Your task to perform on an android device: clear all cookies in the chrome app Image 0: 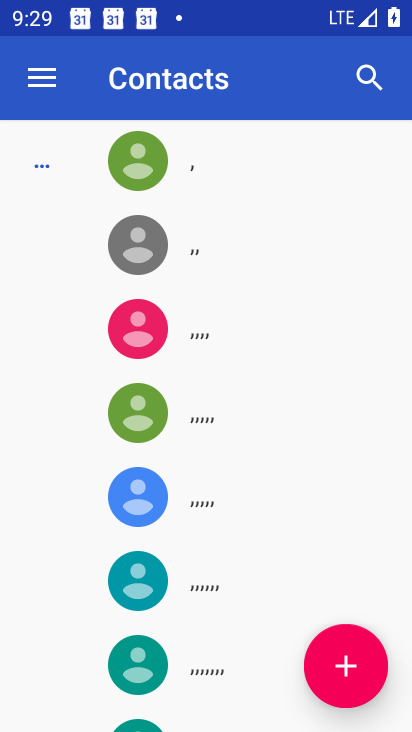
Step 0: press back button
Your task to perform on an android device: clear all cookies in the chrome app Image 1: 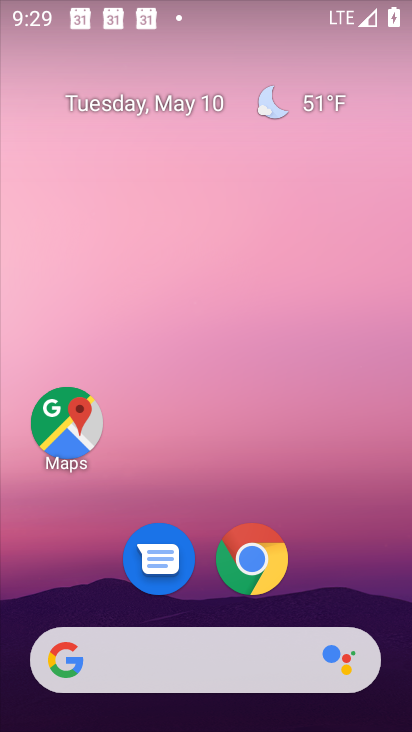
Step 1: click (255, 560)
Your task to perform on an android device: clear all cookies in the chrome app Image 2: 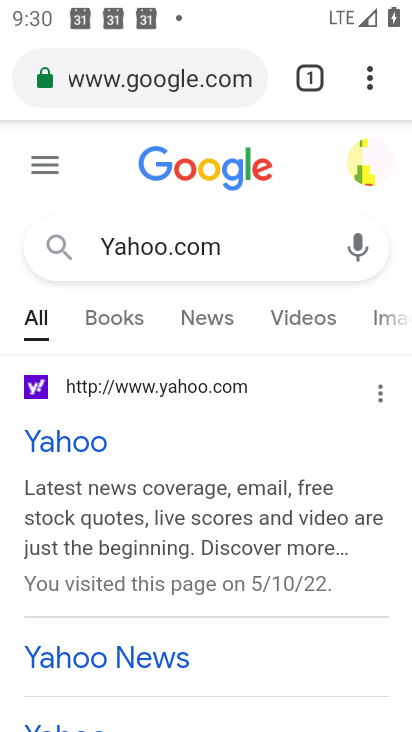
Step 2: click (370, 80)
Your task to perform on an android device: clear all cookies in the chrome app Image 3: 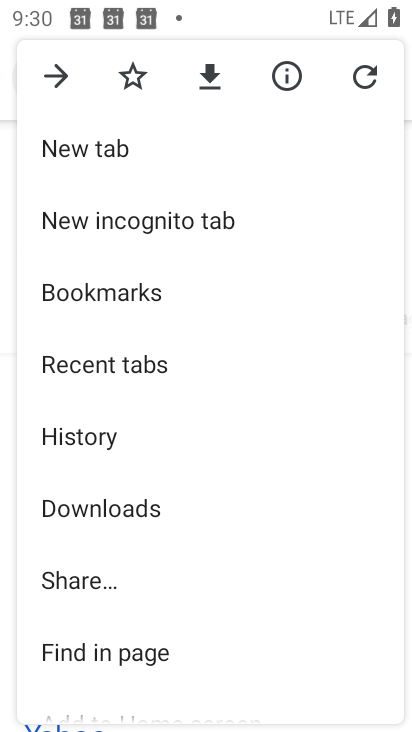
Step 3: drag from (127, 544) to (150, 396)
Your task to perform on an android device: clear all cookies in the chrome app Image 4: 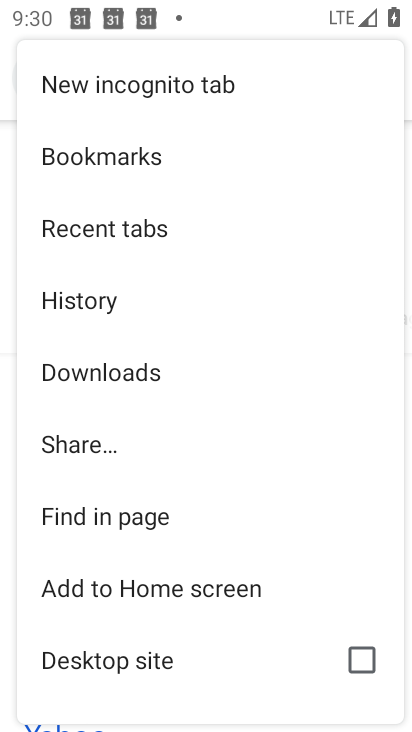
Step 4: drag from (185, 524) to (236, 417)
Your task to perform on an android device: clear all cookies in the chrome app Image 5: 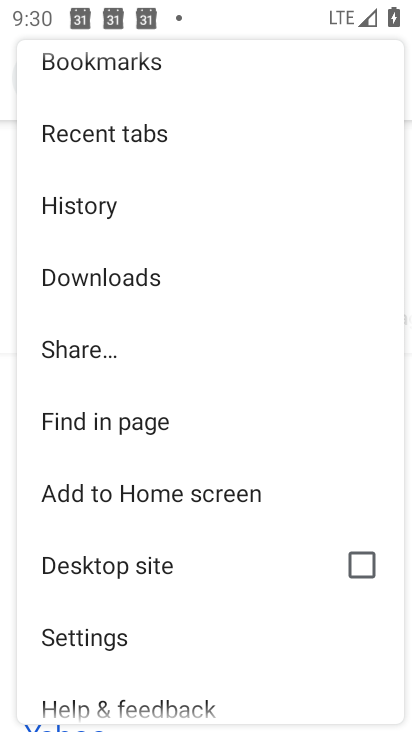
Step 5: click (97, 631)
Your task to perform on an android device: clear all cookies in the chrome app Image 6: 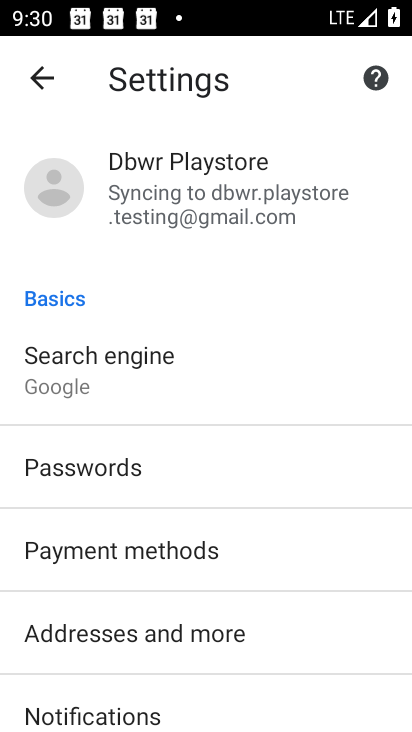
Step 6: drag from (152, 573) to (214, 454)
Your task to perform on an android device: clear all cookies in the chrome app Image 7: 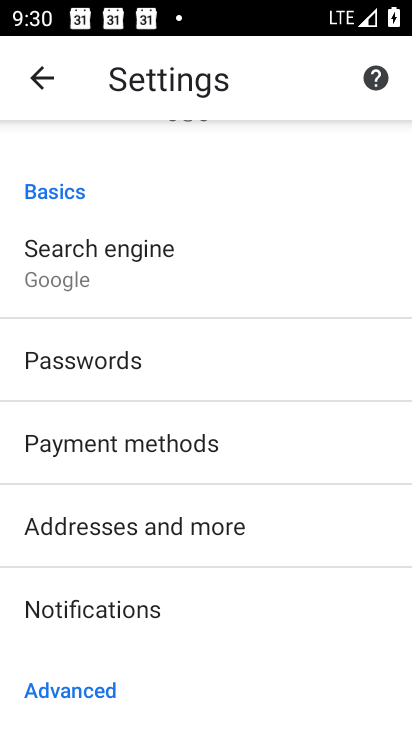
Step 7: drag from (172, 576) to (218, 480)
Your task to perform on an android device: clear all cookies in the chrome app Image 8: 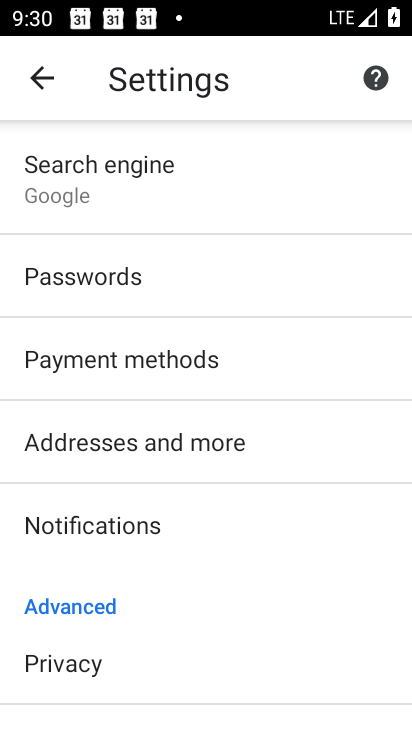
Step 8: drag from (162, 629) to (225, 493)
Your task to perform on an android device: clear all cookies in the chrome app Image 9: 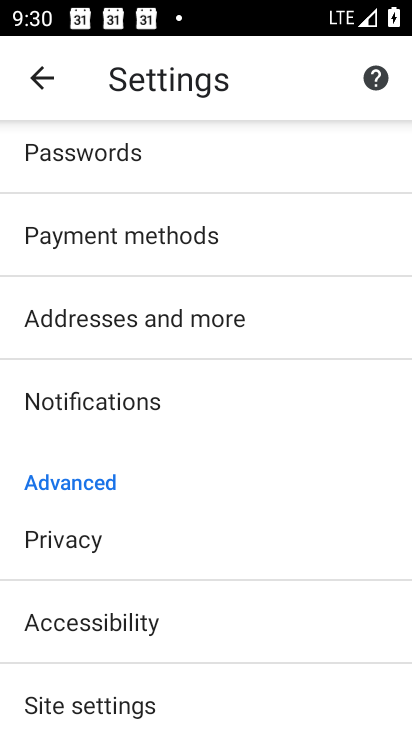
Step 9: click (76, 540)
Your task to perform on an android device: clear all cookies in the chrome app Image 10: 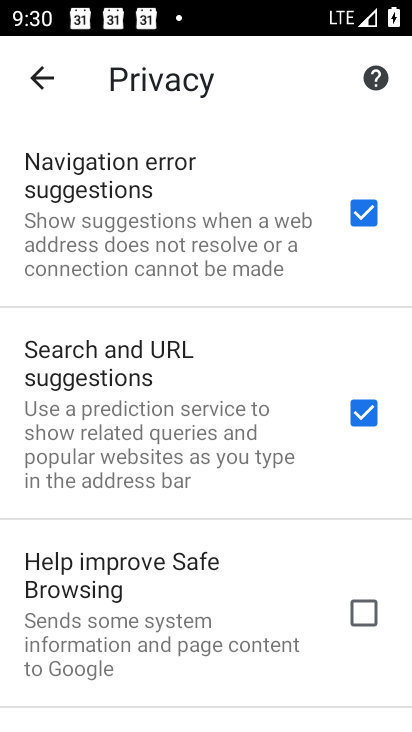
Step 10: drag from (160, 668) to (194, 478)
Your task to perform on an android device: clear all cookies in the chrome app Image 11: 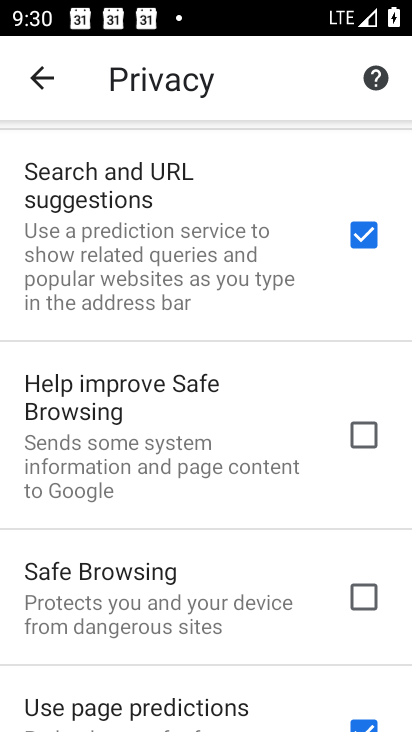
Step 11: drag from (125, 683) to (205, 488)
Your task to perform on an android device: clear all cookies in the chrome app Image 12: 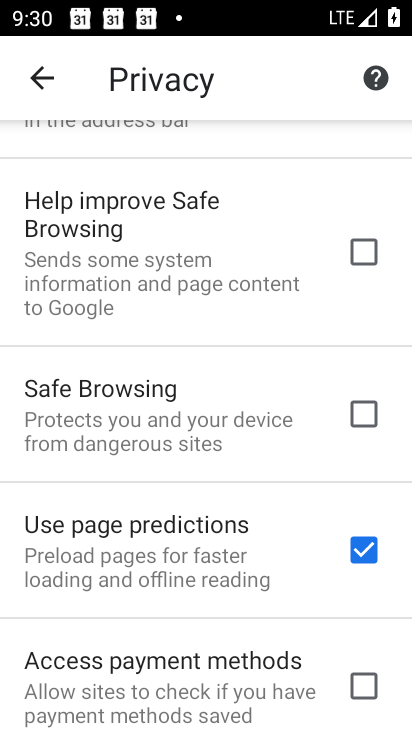
Step 12: drag from (145, 632) to (220, 451)
Your task to perform on an android device: clear all cookies in the chrome app Image 13: 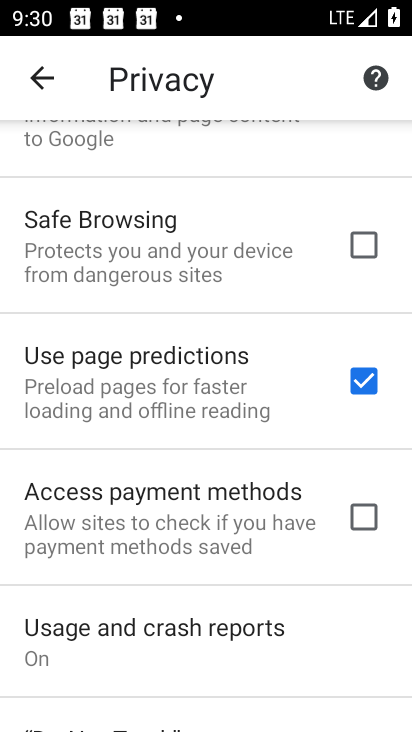
Step 13: drag from (151, 602) to (233, 413)
Your task to perform on an android device: clear all cookies in the chrome app Image 14: 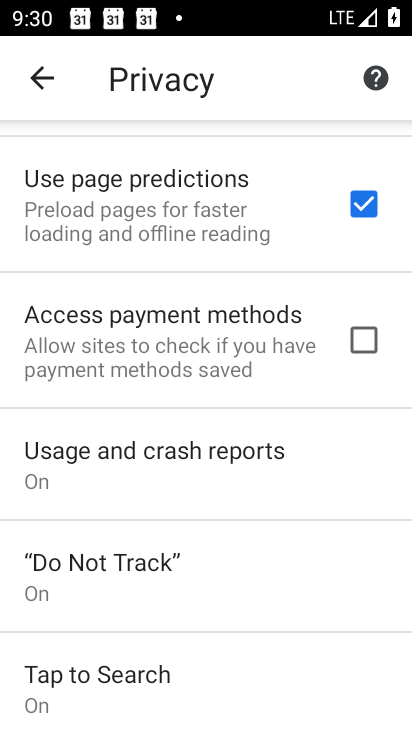
Step 14: drag from (122, 619) to (238, 444)
Your task to perform on an android device: clear all cookies in the chrome app Image 15: 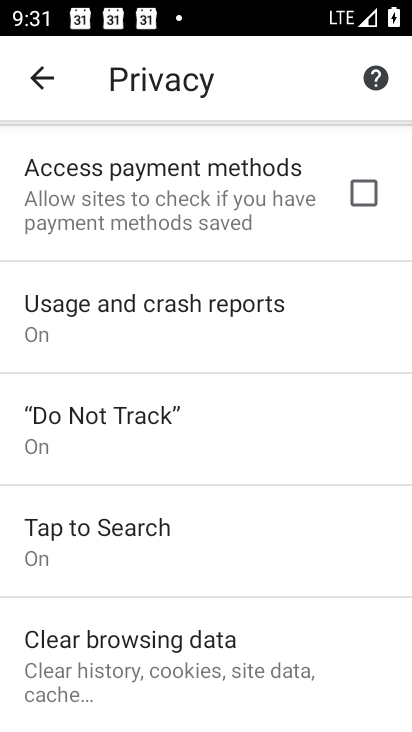
Step 15: click (155, 637)
Your task to perform on an android device: clear all cookies in the chrome app Image 16: 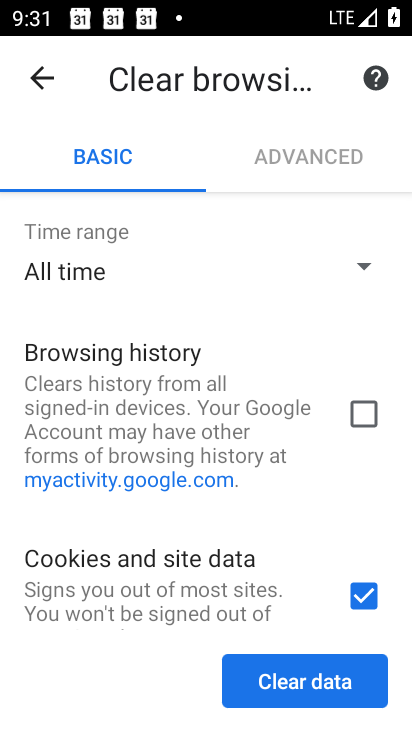
Step 16: click (283, 674)
Your task to perform on an android device: clear all cookies in the chrome app Image 17: 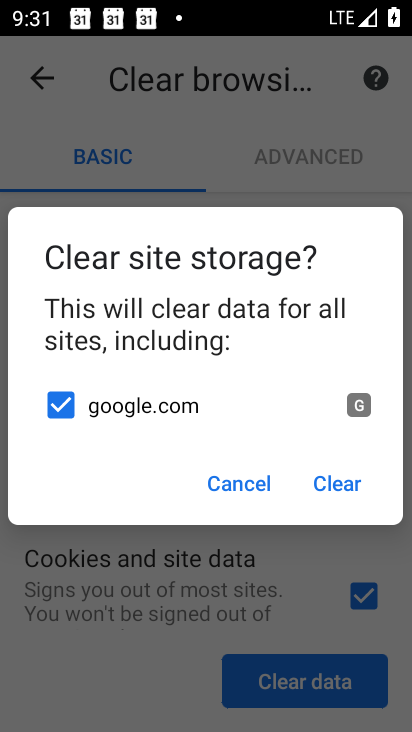
Step 17: click (345, 481)
Your task to perform on an android device: clear all cookies in the chrome app Image 18: 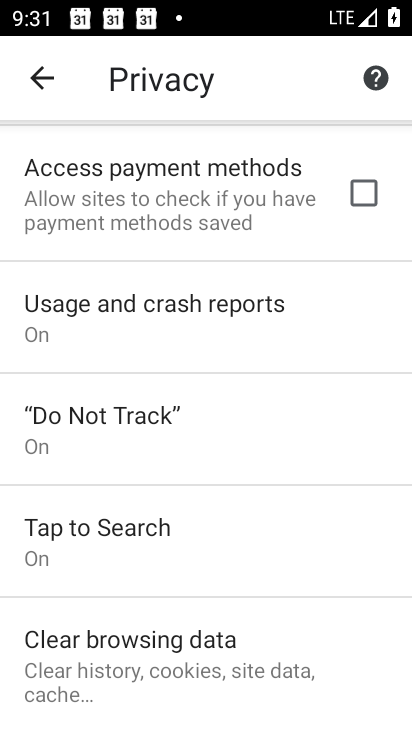
Step 18: task complete